Your task to perform on an android device: turn on airplane mode Image 0: 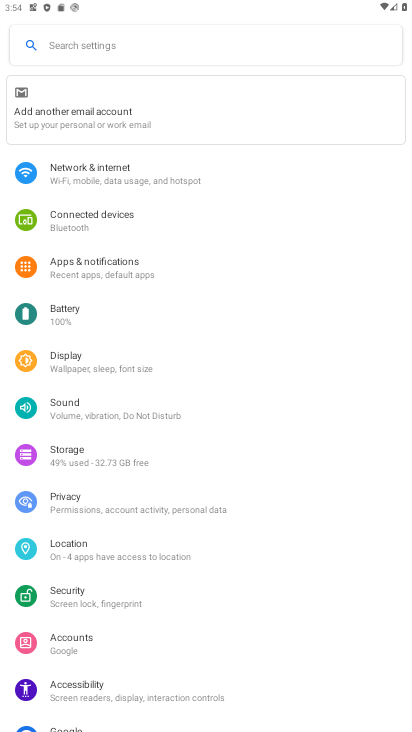
Step 0: click (105, 174)
Your task to perform on an android device: turn on airplane mode Image 1: 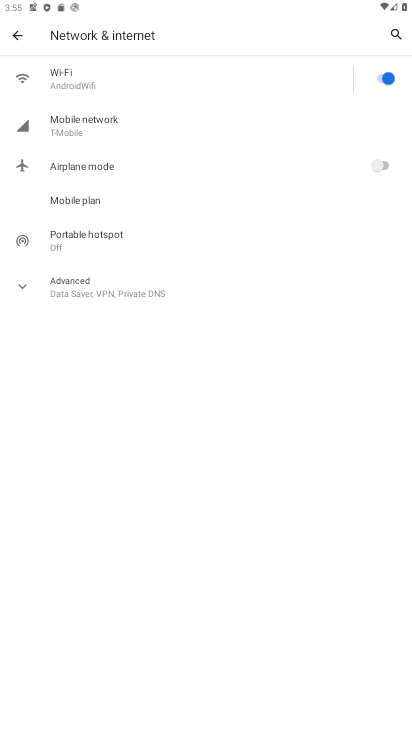
Step 1: click (388, 162)
Your task to perform on an android device: turn on airplane mode Image 2: 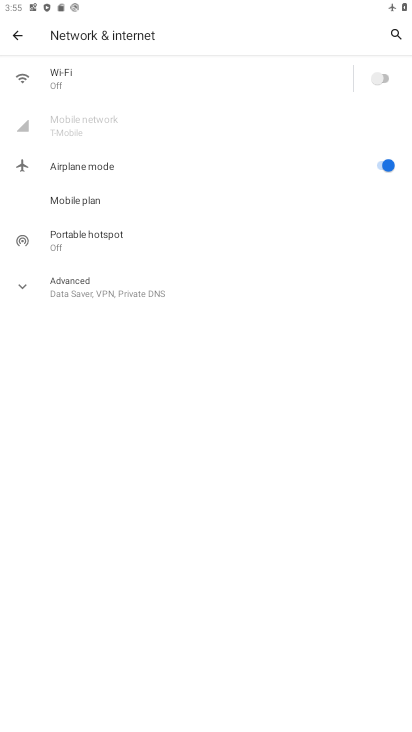
Step 2: task complete